Your task to perform on an android device: toggle location history Image 0: 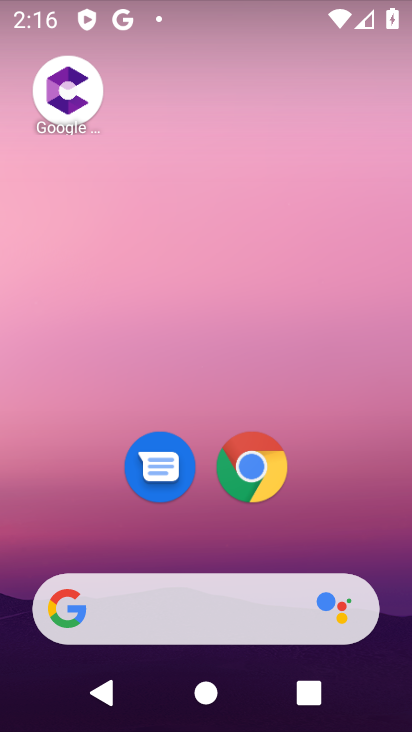
Step 0: drag from (235, 559) to (253, 173)
Your task to perform on an android device: toggle location history Image 1: 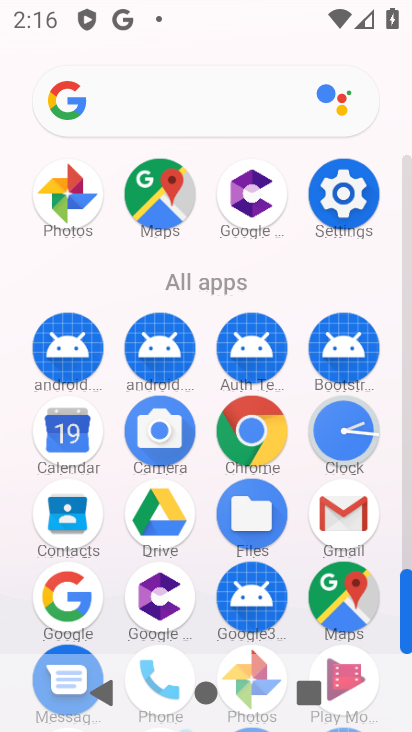
Step 1: click (358, 203)
Your task to perform on an android device: toggle location history Image 2: 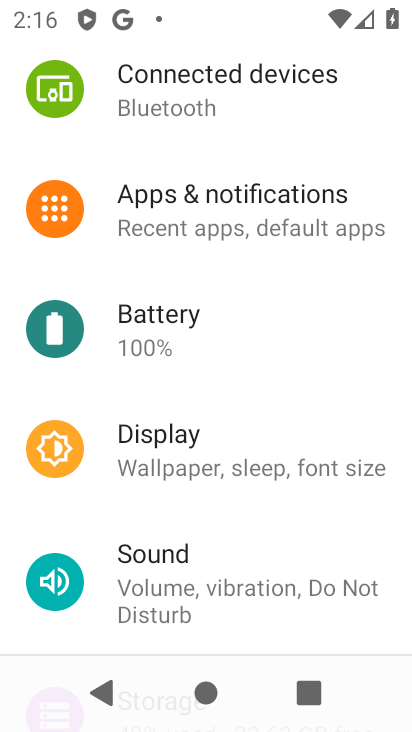
Step 2: drag from (220, 577) to (274, 92)
Your task to perform on an android device: toggle location history Image 3: 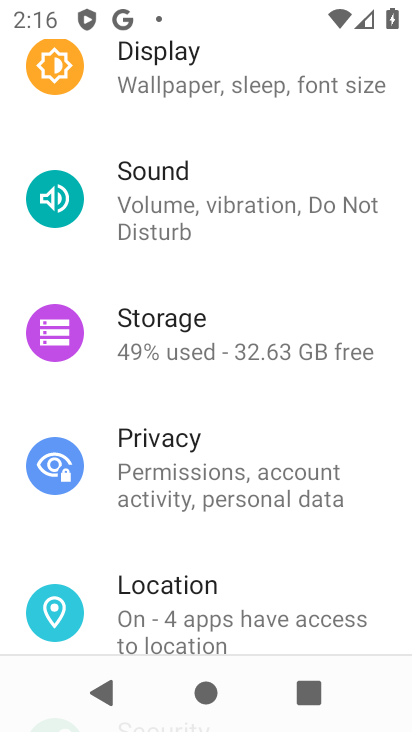
Step 3: click (165, 595)
Your task to perform on an android device: toggle location history Image 4: 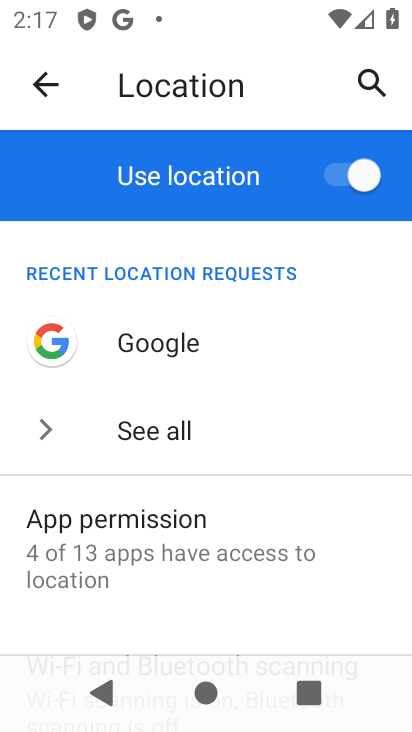
Step 4: drag from (180, 597) to (286, 85)
Your task to perform on an android device: toggle location history Image 5: 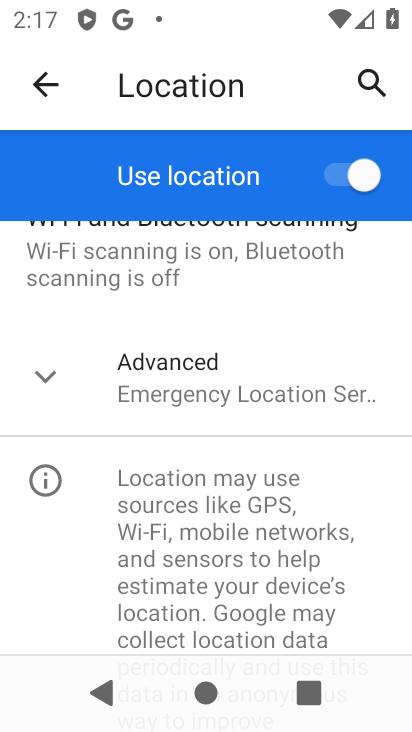
Step 5: click (141, 399)
Your task to perform on an android device: toggle location history Image 6: 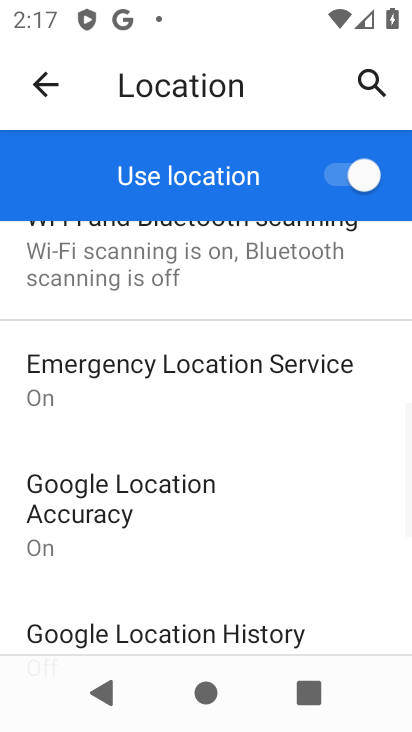
Step 6: drag from (176, 527) to (209, 295)
Your task to perform on an android device: toggle location history Image 7: 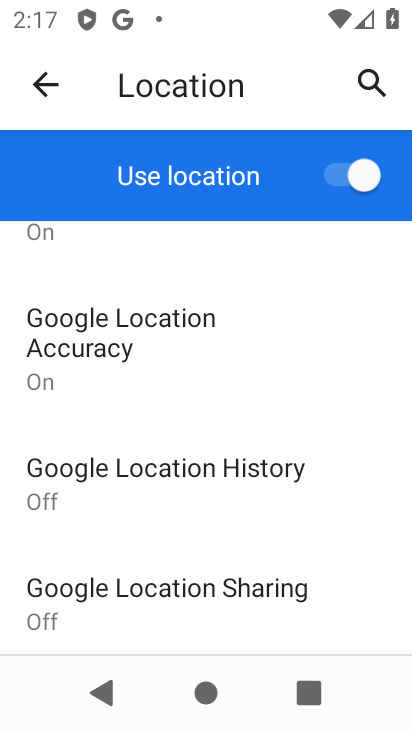
Step 7: click (206, 486)
Your task to perform on an android device: toggle location history Image 8: 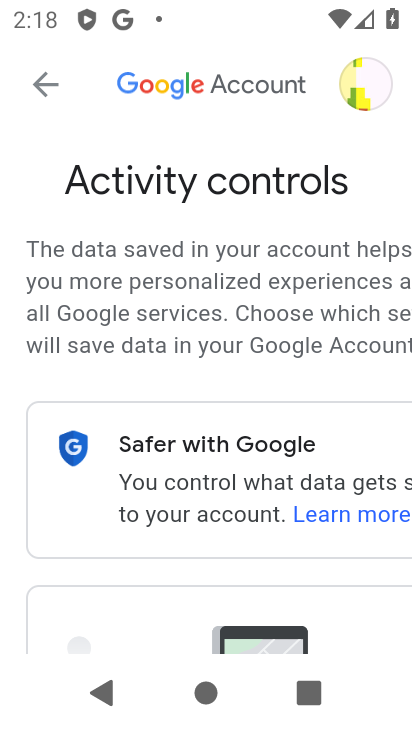
Step 8: drag from (242, 579) to (235, 134)
Your task to perform on an android device: toggle location history Image 9: 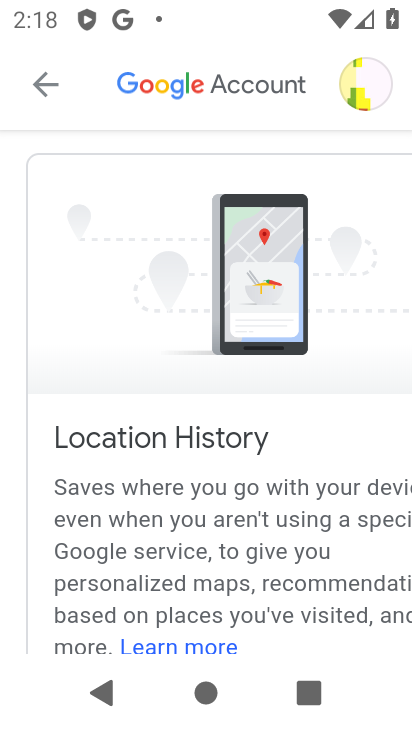
Step 9: drag from (265, 543) to (243, 76)
Your task to perform on an android device: toggle location history Image 10: 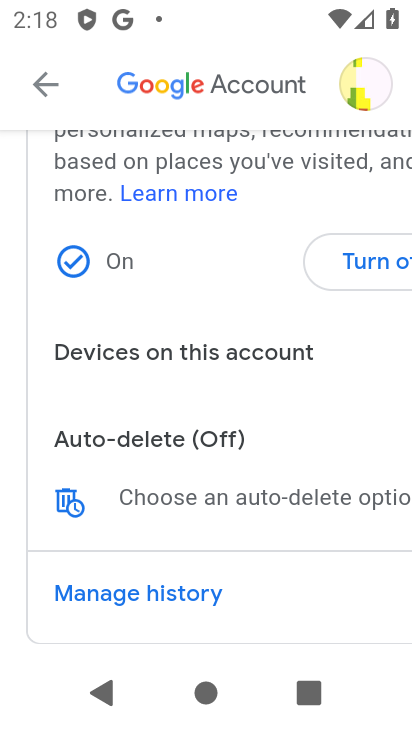
Step 10: click (365, 259)
Your task to perform on an android device: toggle location history Image 11: 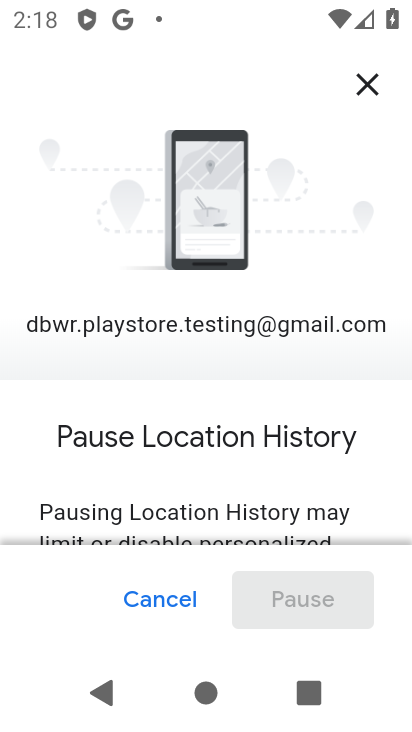
Step 11: drag from (152, 476) to (243, 19)
Your task to perform on an android device: toggle location history Image 12: 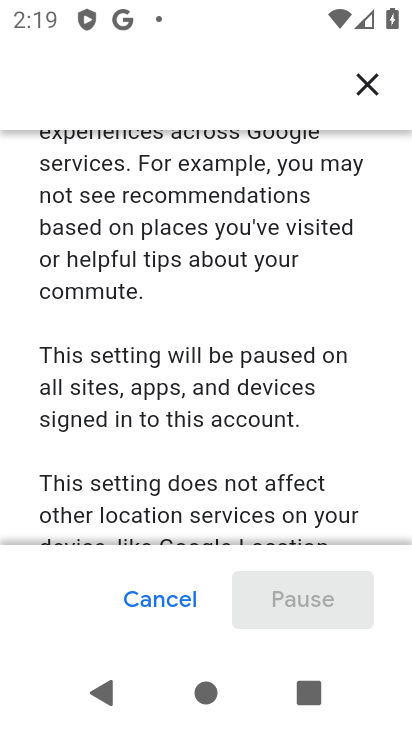
Step 12: drag from (244, 453) to (209, 160)
Your task to perform on an android device: toggle location history Image 13: 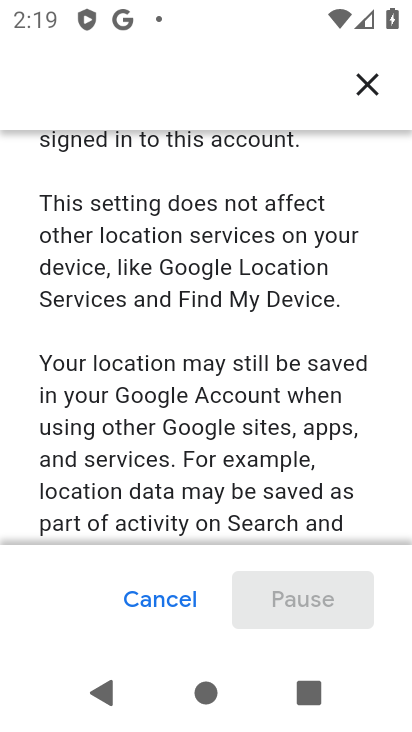
Step 13: drag from (187, 511) to (227, 71)
Your task to perform on an android device: toggle location history Image 14: 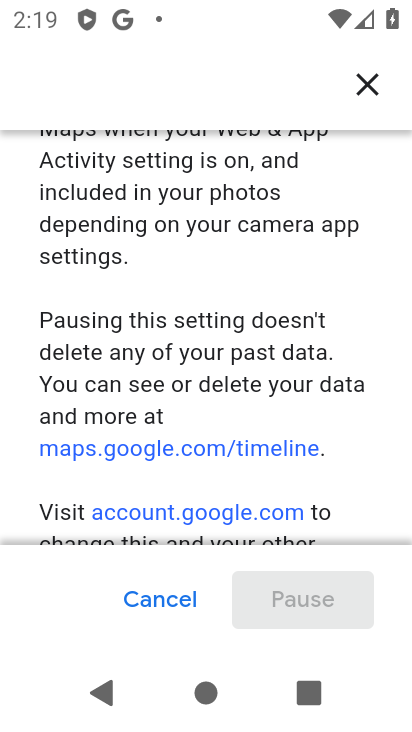
Step 14: drag from (170, 485) to (237, 3)
Your task to perform on an android device: toggle location history Image 15: 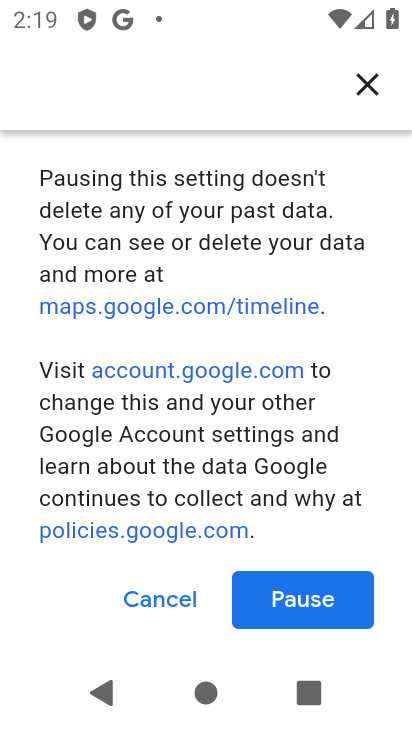
Step 15: drag from (224, 482) to (247, 138)
Your task to perform on an android device: toggle location history Image 16: 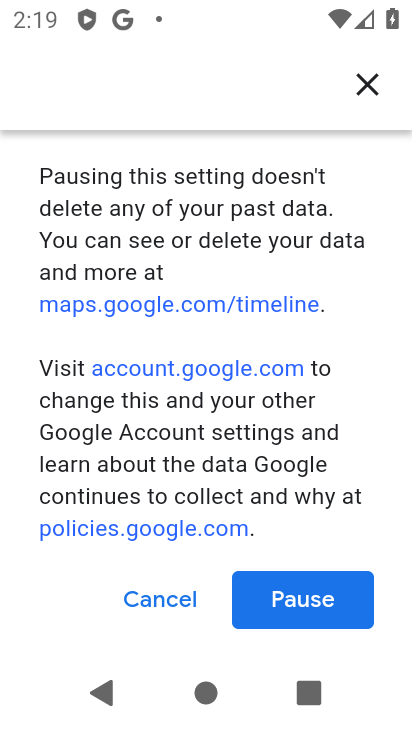
Step 16: click (307, 594)
Your task to perform on an android device: toggle location history Image 17: 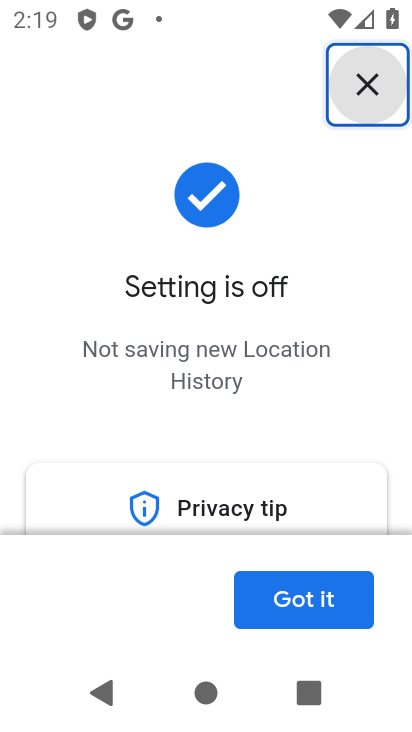
Step 17: click (273, 606)
Your task to perform on an android device: toggle location history Image 18: 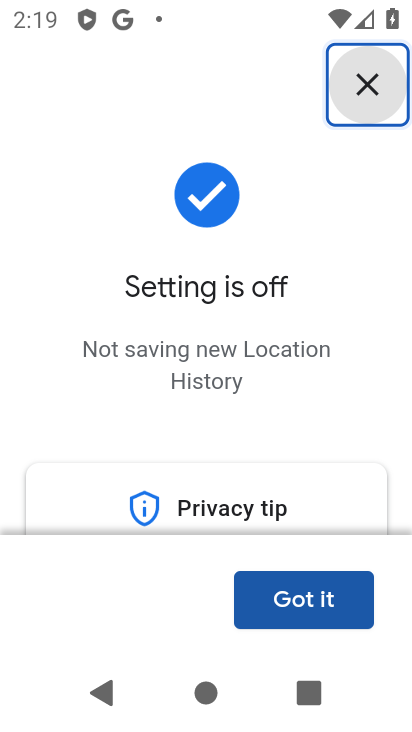
Step 18: task complete